Your task to perform on an android device: Open sound settings Image 0: 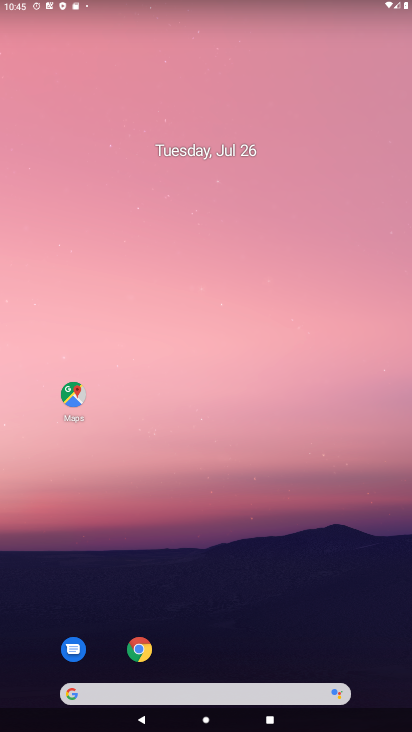
Step 0: drag from (200, 632) to (227, 438)
Your task to perform on an android device: Open sound settings Image 1: 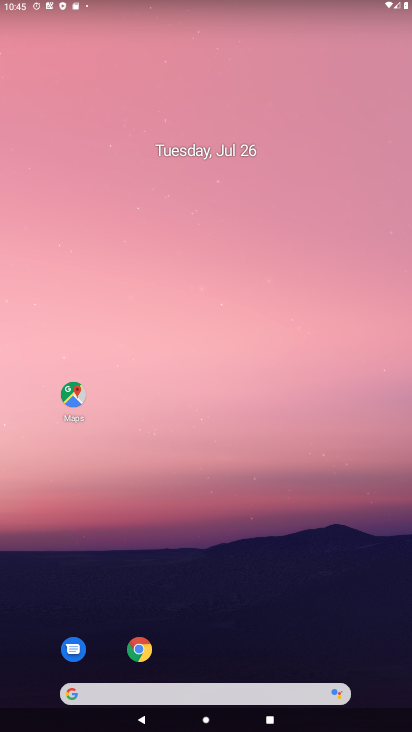
Step 1: drag from (204, 652) to (203, 112)
Your task to perform on an android device: Open sound settings Image 2: 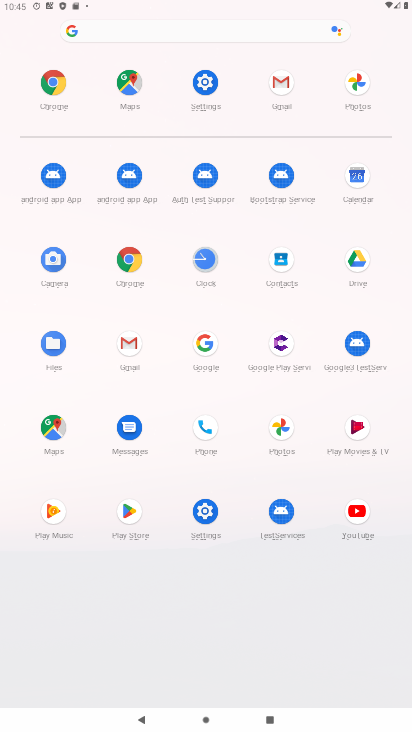
Step 2: click (201, 79)
Your task to perform on an android device: Open sound settings Image 3: 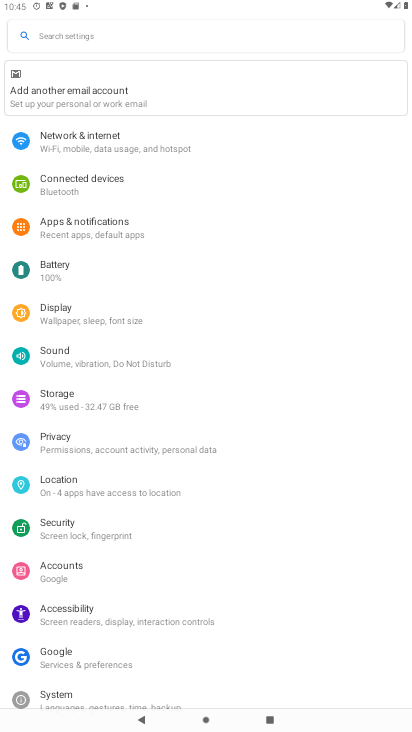
Step 3: click (63, 350)
Your task to perform on an android device: Open sound settings Image 4: 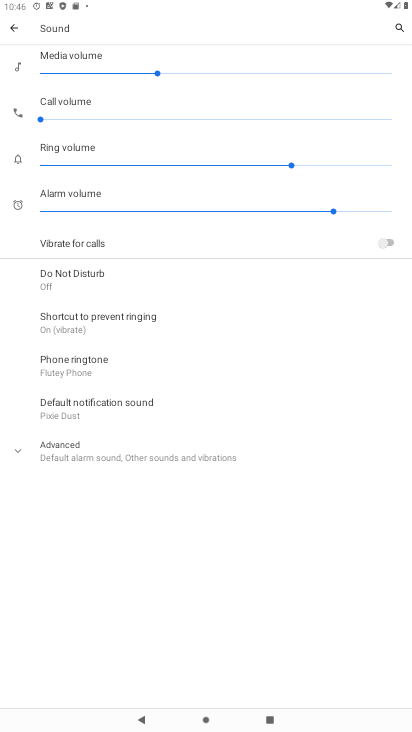
Step 4: task complete